Your task to perform on an android device: turn vacation reply on in the gmail app Image 0: 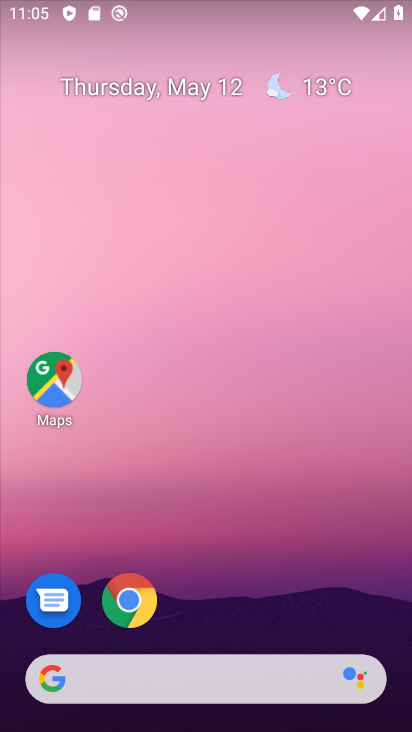
Step 0: drag from (373, 617) to (284, 166)
Your task to perform on an android device: turn vacation reply on in the gmail app Image 1: 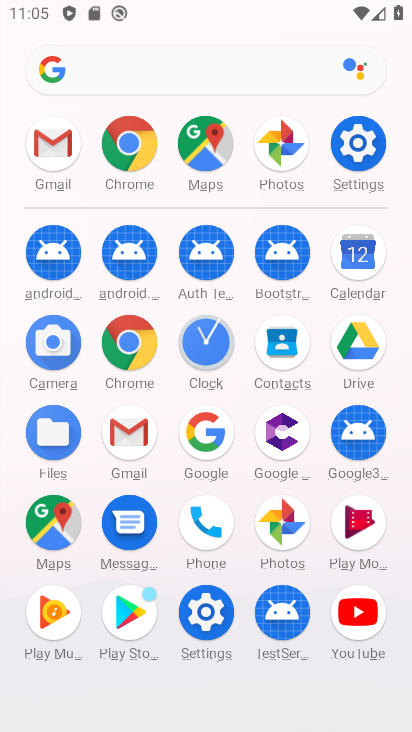
Step 1: click (128, 427)
Your task to perform on an android device: turn vacation reply on in the gmail app Image 2: 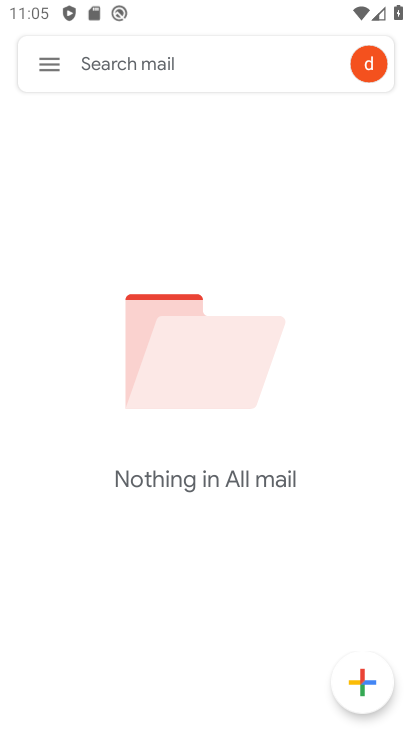
Step 2: click (51, 59)
Your task to perform on an android device: turn vacation reply on in the gmail app Image 3: 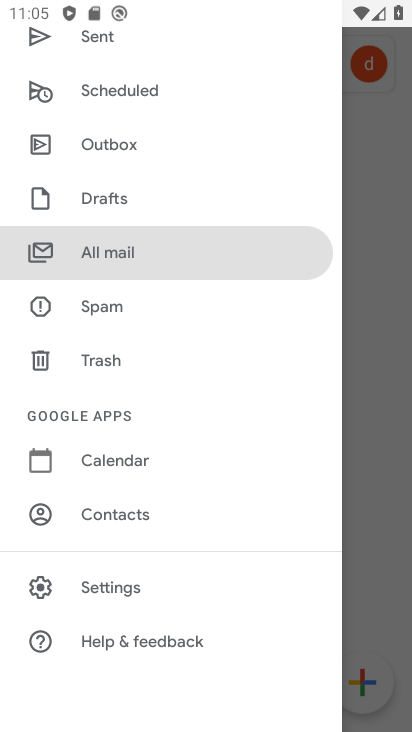
Step 3: click (109, 578)
Your task to perform on an android device: turn vacation reply on in the gmail app Image 4: 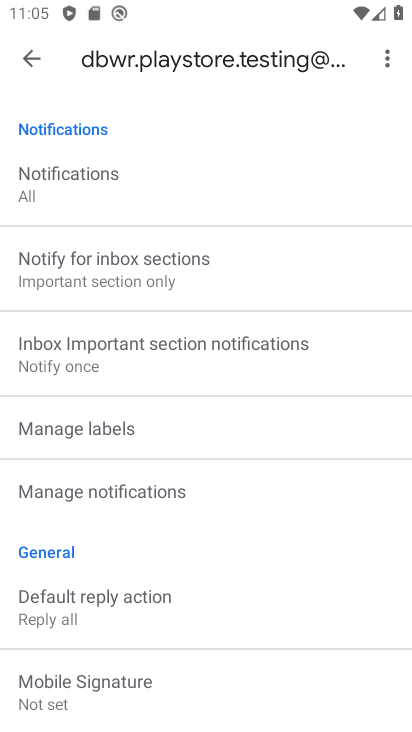
Step 4: drag from (292, 627) to (344, 276)
Your task to perform on an android device: turn vacation reply on in the gmail app Image 5: 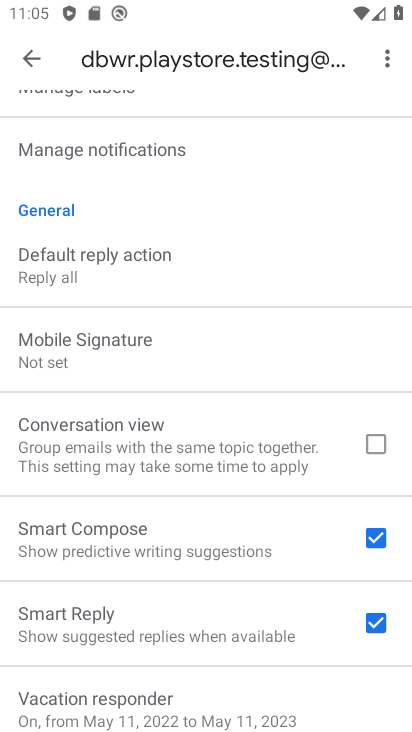
Step 5: drag from (335, 516) to (320, 209)
Your task to perform on an android device: turn vacation reply on in the gmail app Image 6: 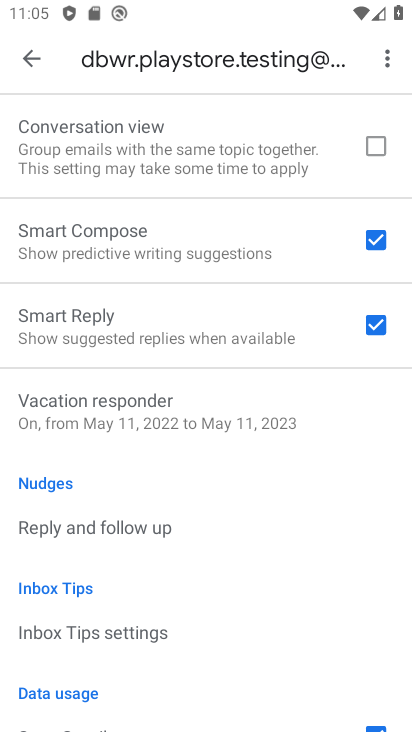
Step 6: click (129, 406)
Your task to perform on an android device: turn vacation reply on in the gmail app Image 7: 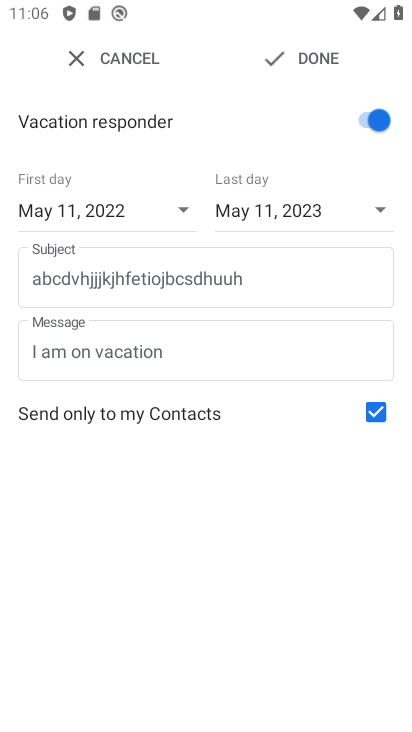
Step 7: task complete